Your task to perform on an android device: create a new album in the google photos Image 0: 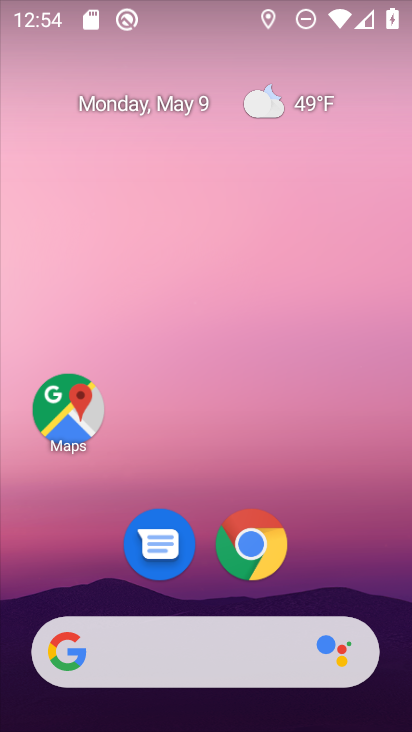
Step 0: drag from (335, 556) to (404, 31)
Your task to perform on an android device: create a new album in the google photos Image 1: 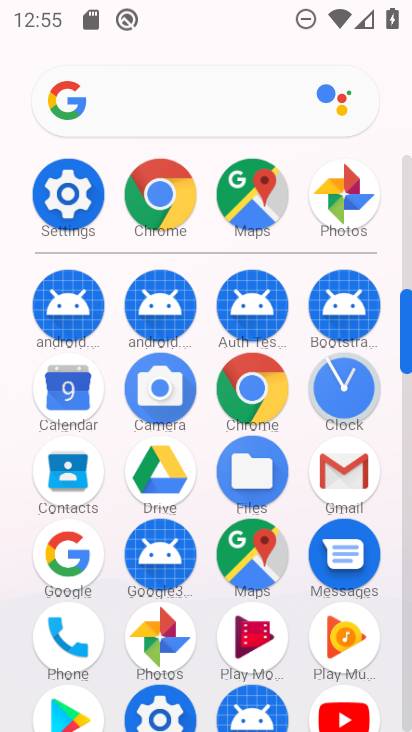
Step 1: click (358, 181)
Your task to perform on an android device: create a new album in the google photos Image 2: 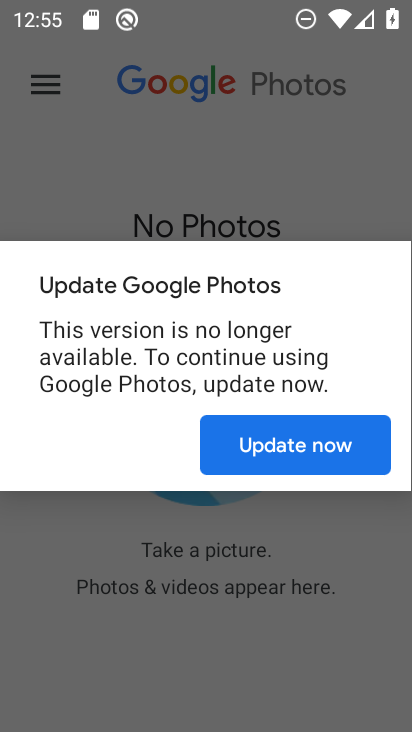
Step 2: click (355, 456)
Your task to perform on an android device: create a new album in the google photos Image 3: 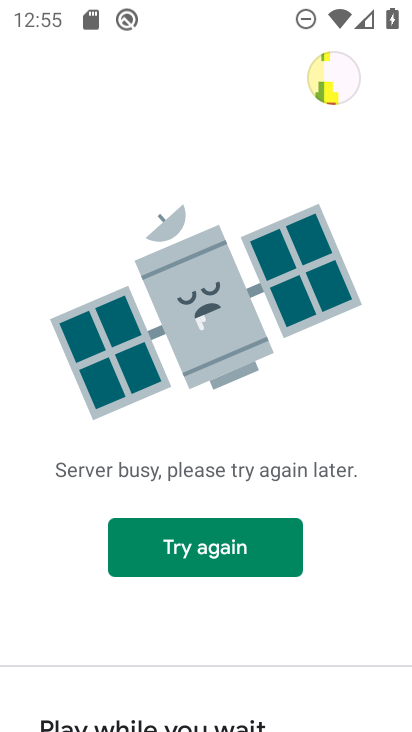
Step 3: task complete